Your task to perform on an android device: change text size in settings app Image 0: 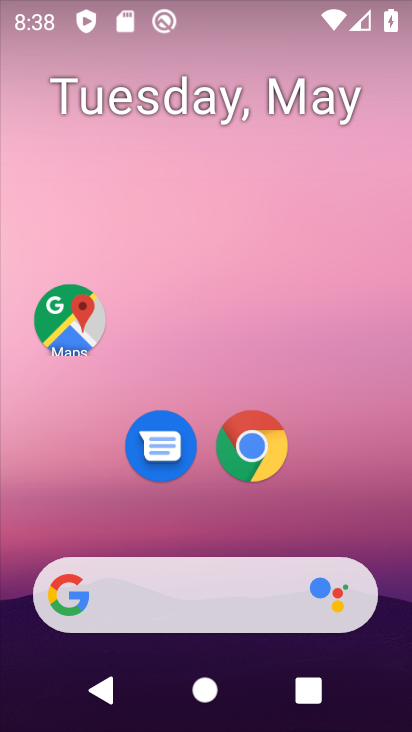
Step 0: drag from (383, 528) to (380, 0)
Your task to perform on an android device: change text size in settings app Image 1: 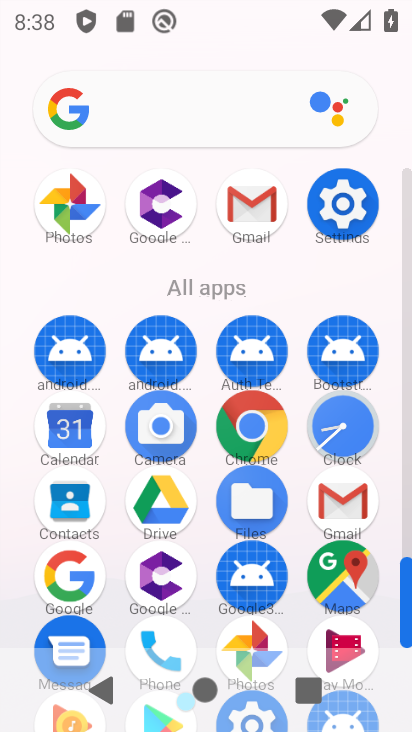
Step 1: click (338, 212)
Your task to perform on an android device: change text size in settings app Image 2: 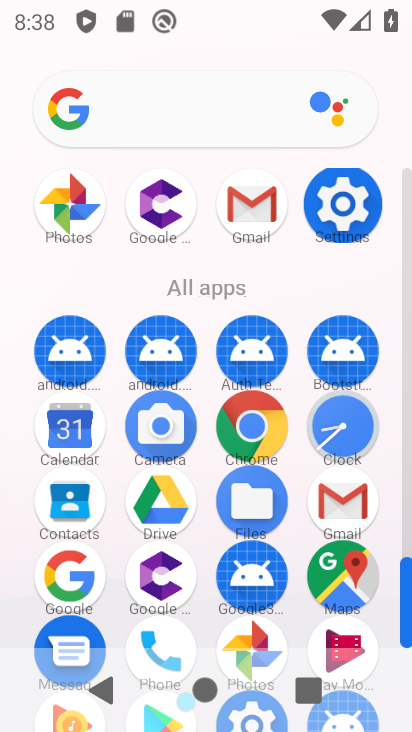
Step 2: click (338, 212)
Your task to perform on an android device: change text size in settings app Image 3: 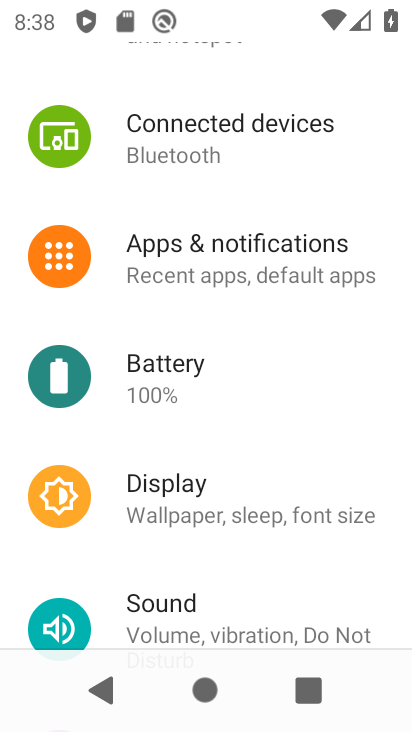
Step 3: click (165, 488)
Your task to perform on an android device: change text size in settings app Image 4: 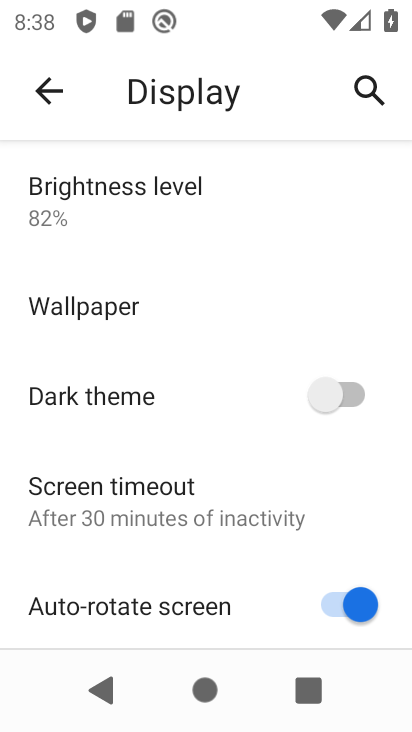
Step 4: drag from (112, 456) to (143, 287)
Your task to perform on an android device: change text size in settings app Image 5: 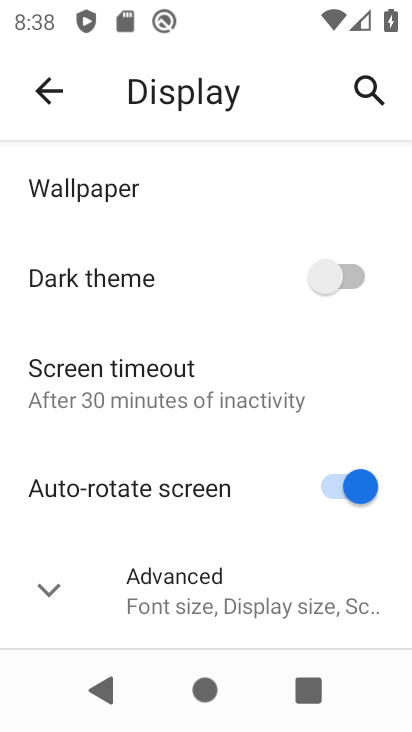
Step 5: click (126, 582)
Your task to perform on an android device: change text size in settings app Image 6: 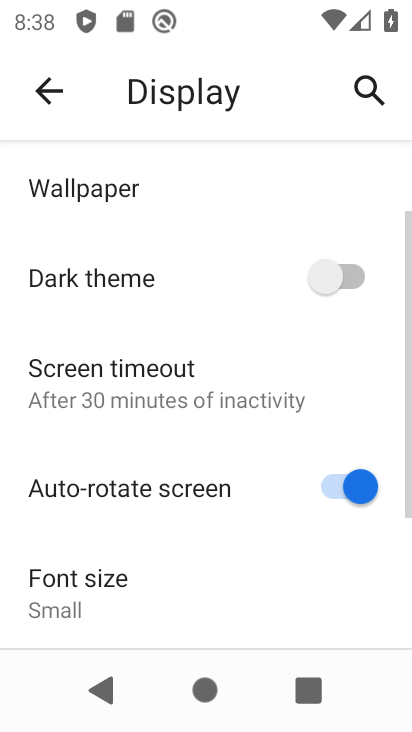
Step 6: click (146, 585)
Your task to perform on an android device: change text size in settings app Image 7: 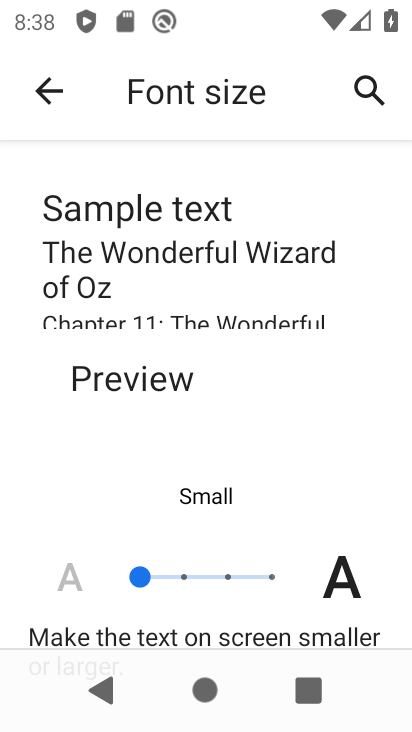
Step 7: click (184, 578)
Your task to perform on an android device: change text size in settings app Image 8: 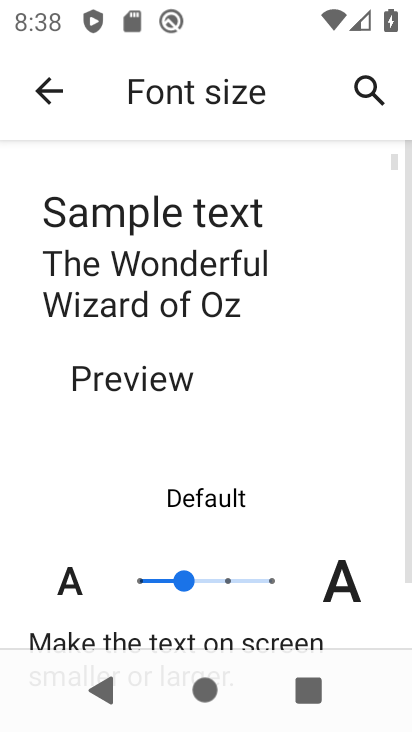
Step 8: task complete